Your task to perform on an android device: turn on javascript in the chrome app Image 0: 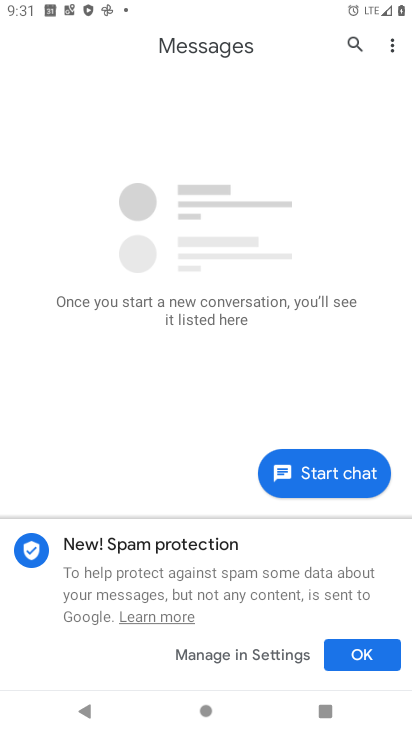
Step 0: press home button
Your task to perform on an android device: turn on javascript in the chrome app Image 1: 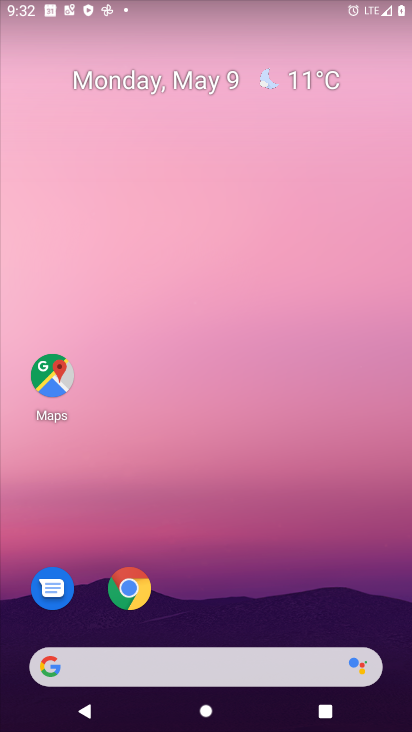
Step 1: drag from (368, 614) to (248, 9)
Your task to perform on an android device: turn on javascript in the chrome app Image 2: 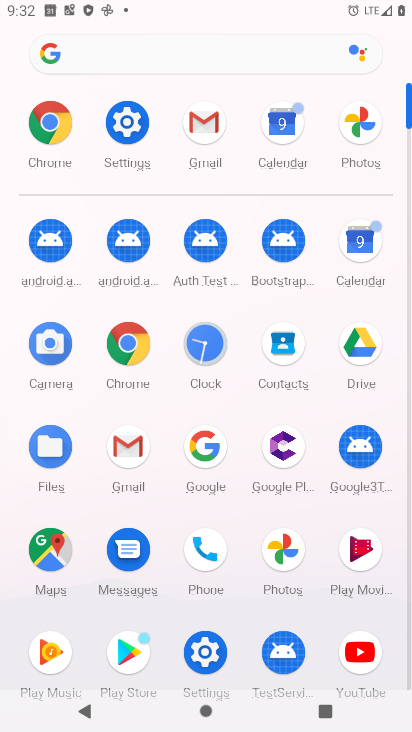
Step 2: click (131, 345)
Your task to perform on an android device: turn on javascript in the chrome app Image 3: 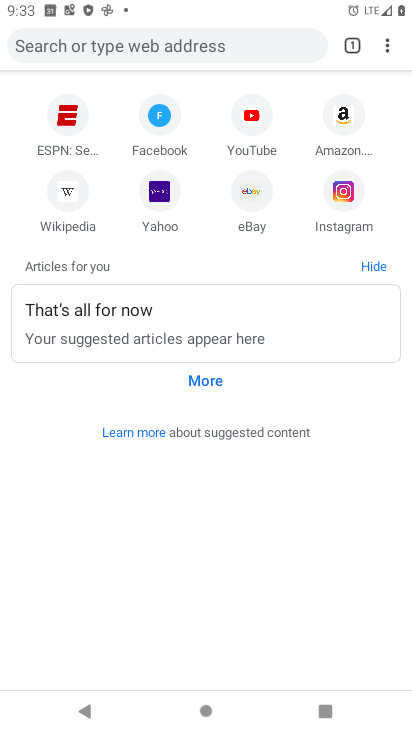
Step 3: click (387, 46)
Your task to perform on an android device: turn on javascript in the chrome app Image 4: 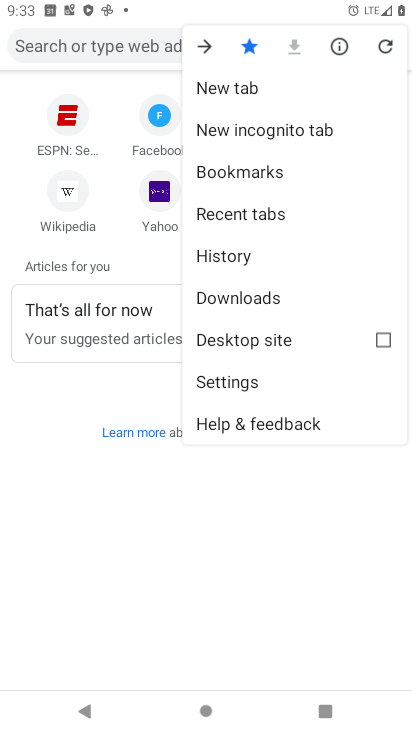
Step 4: click (253, 391)
Your task to perform on an android device: turn on javascript in the chrome app Image 5: 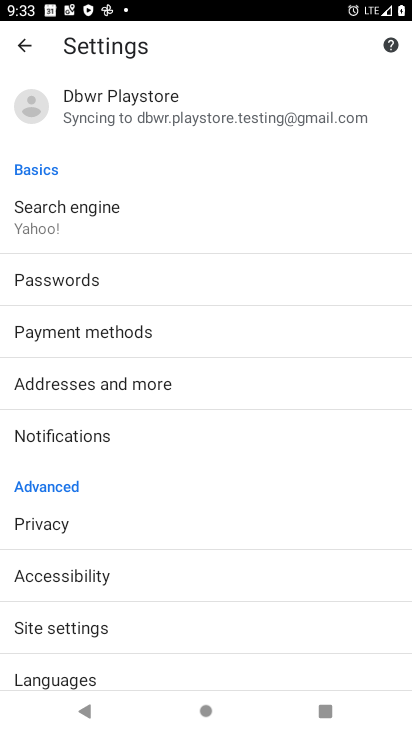
Step 5: click (134, 627)
Your task to perform on an android device: turn on javascript in the chrome app Image 6: 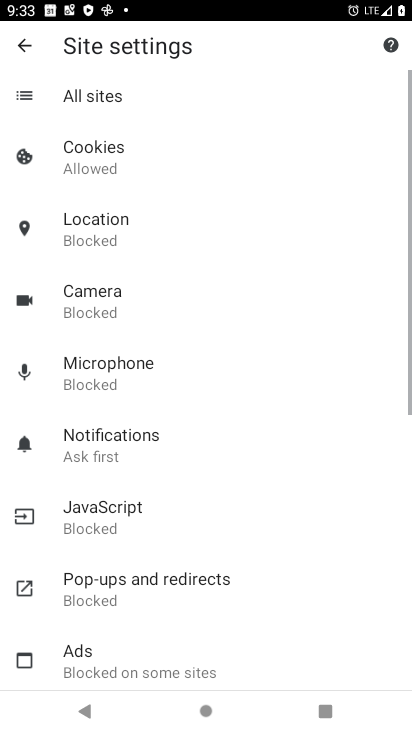
Step 6: click (144, 505)
Your task to perform on an android device: turn on javascript in the chrome app Image 7: 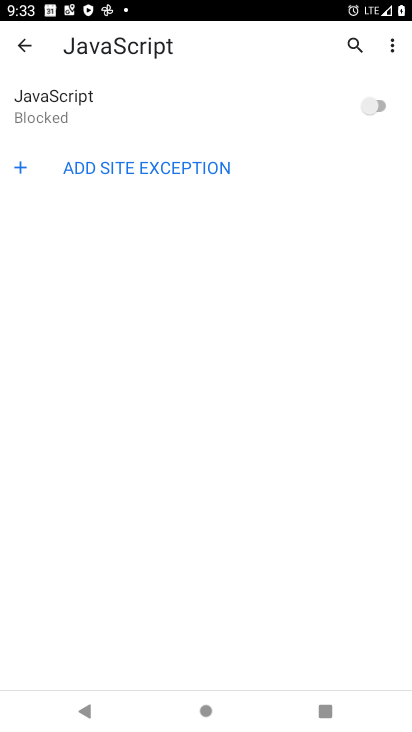
Step 7: click (344, 98)
Your task to perform on an android device: turn on javascript in the chrome app Image 8: 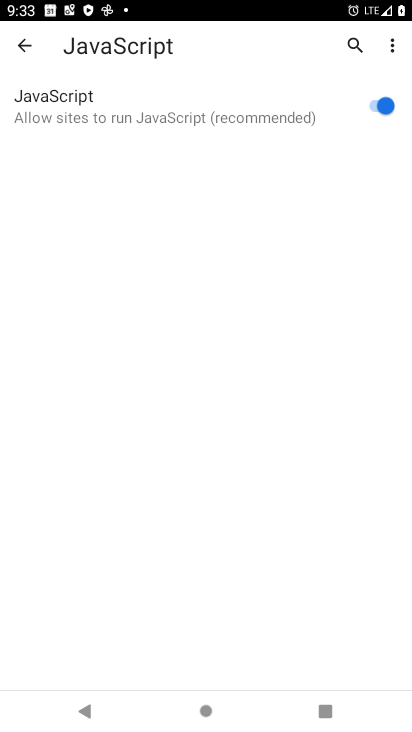
Step 8: task complete